Your task to perform on an android device: open app "NewsBreak: Local News & Alerts" (install if not already installed) Image 0: 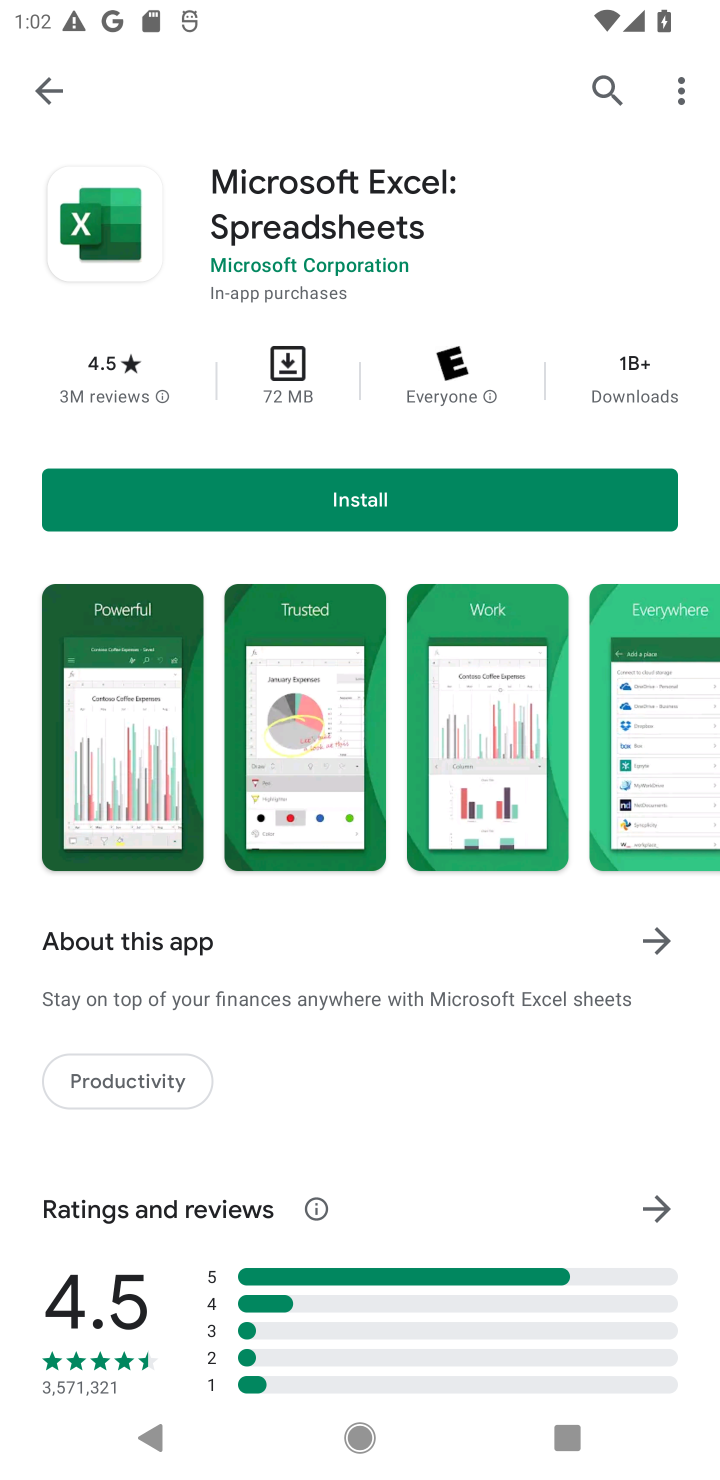
Step 0: click (600, 95)
Your task to perform on an android device: open app "NewsBreak: Local News & Alerts" (install if not already installed) Image 1: 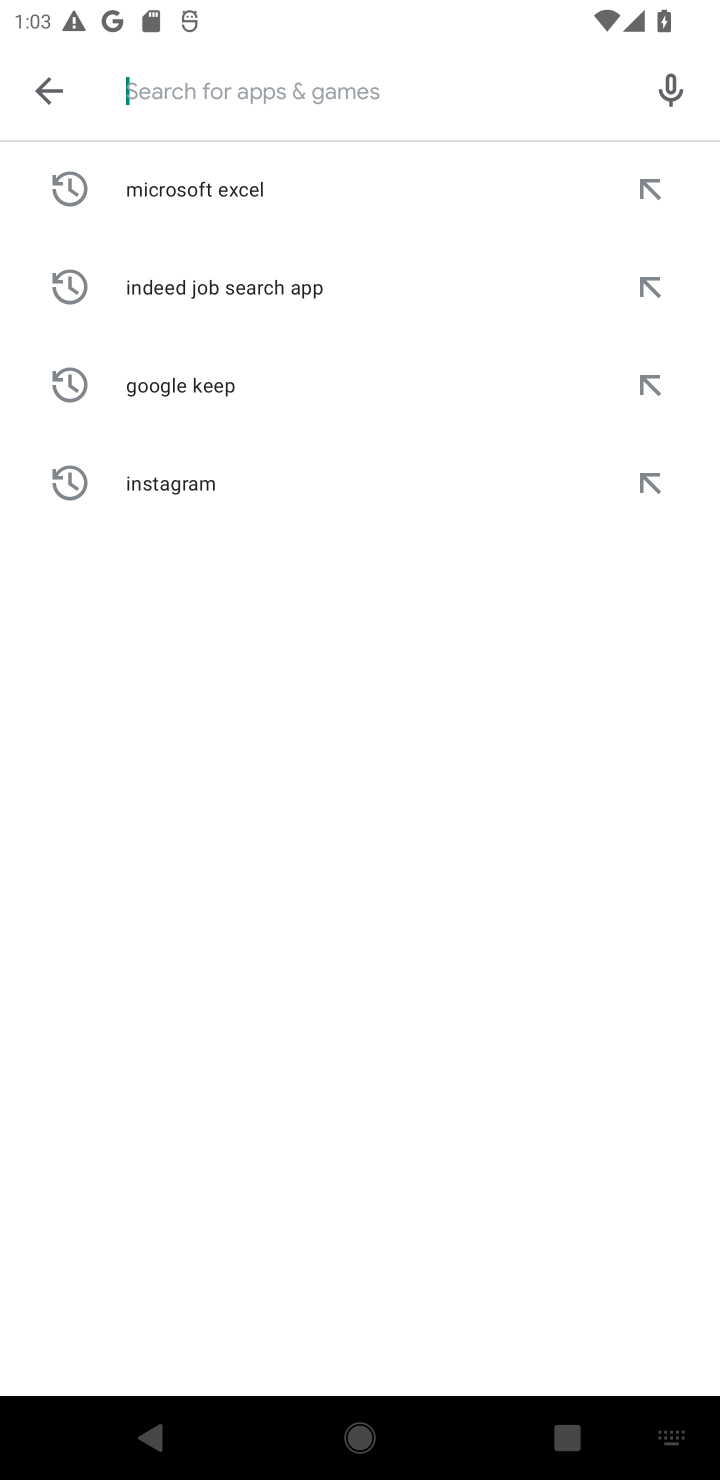
Step 1: type "NewsBreak: Local News & Alerts"
Your task to perform on an android device: open app "NewsBreak: Local News & Alerts" (install if not already installed) Image 2: 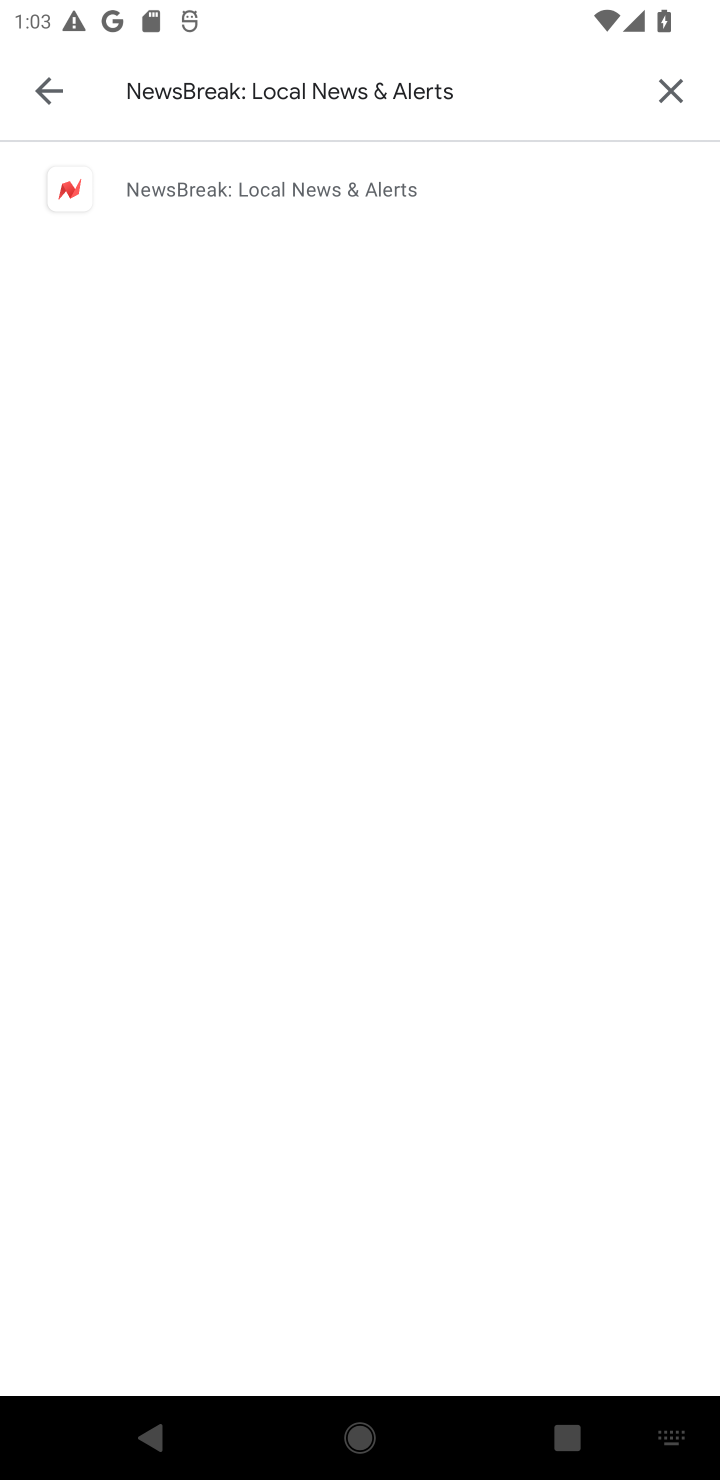
Step 2: click (336, 198)
Your task to perform on an android device: open app "NewsBreak: Local News & Alerts" (install if not already installed) Image 3: 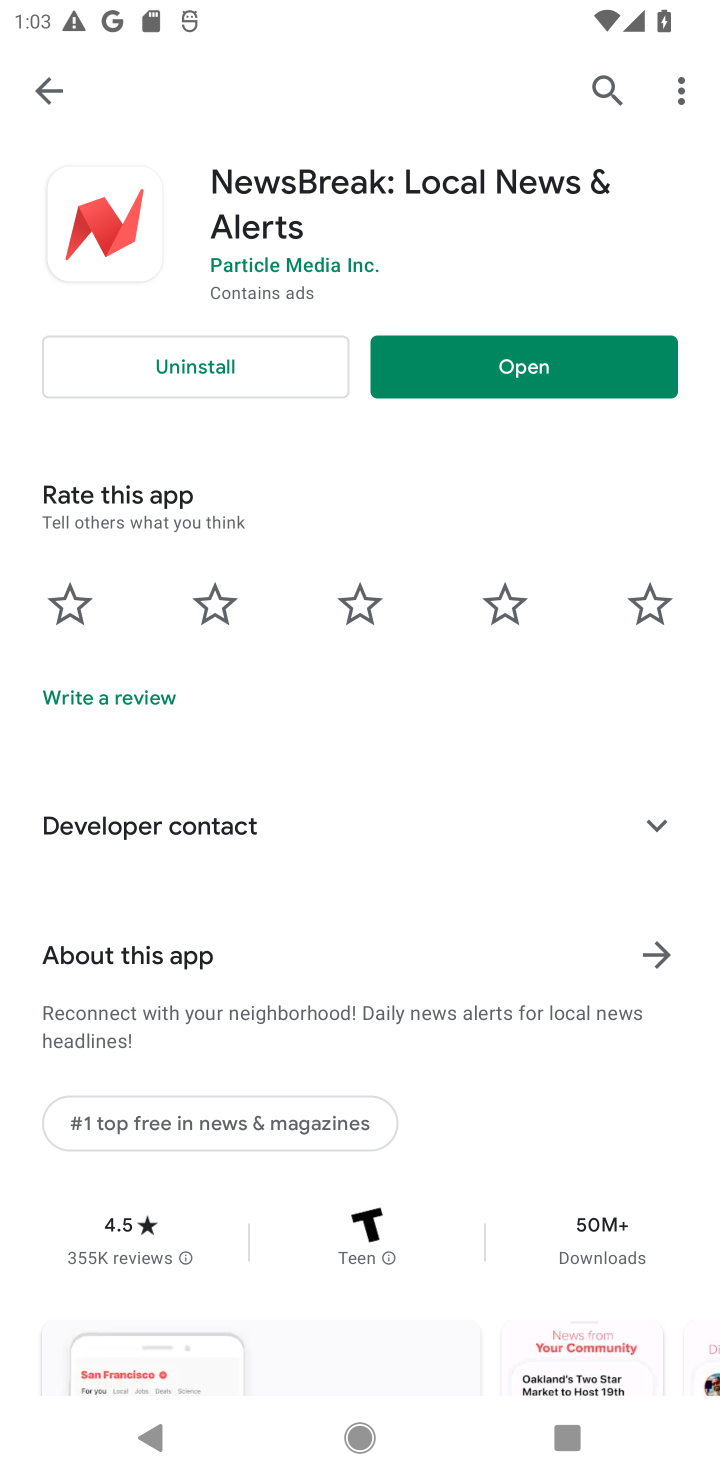
Step 3: click (496, 359)
Your task to perform on an android device: open app "NewsBreak: Local News & Alerts" (install if not already installed) Image 4: 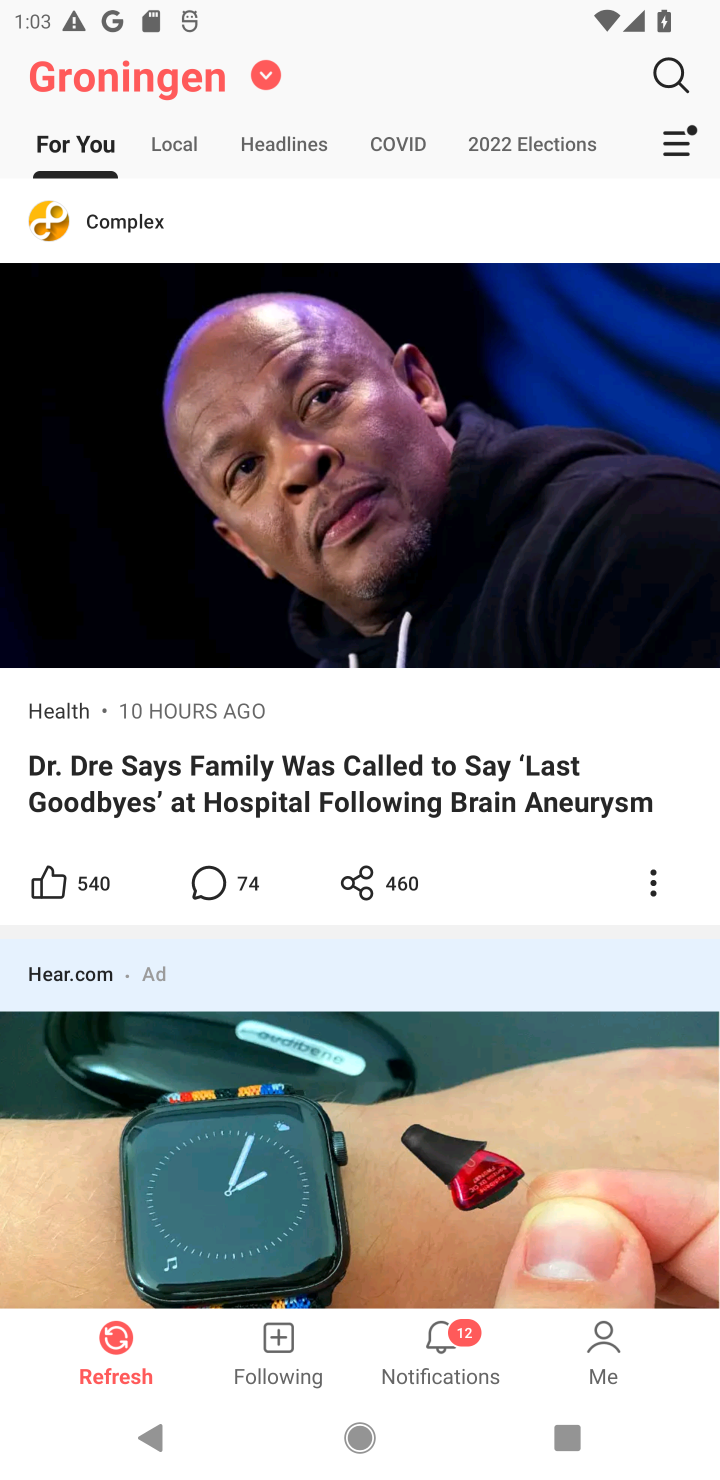
Step 4: task complete